Your task to perform on an android device: turn pop-ups off in chrome Image 0: 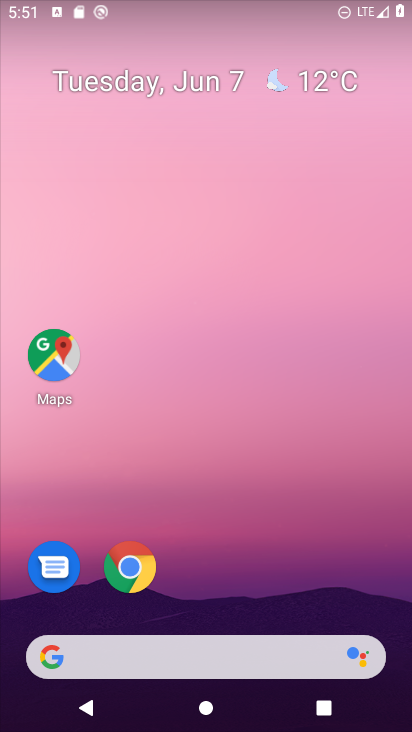
Step 0: drag from (304, 637) to (338, 140)
Your task to perform on an android device: turn pop-ups off in chrome Image 1: 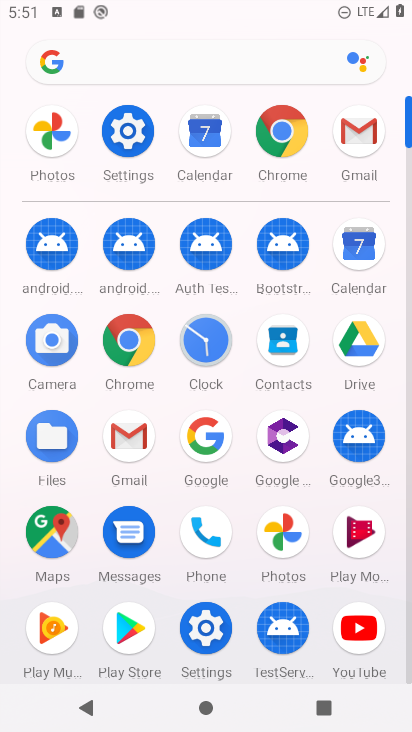
Step 1: click (145, 353)
Your task to perform on an android device: turn pop-ups off in chrome Image 2: 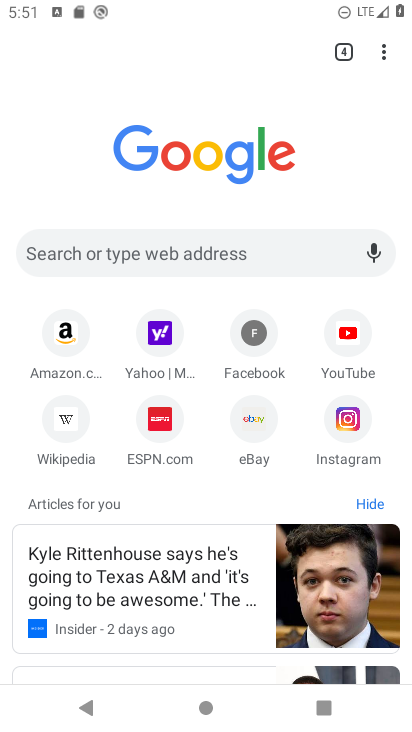
Step 2: click (380, 54)
Your task to perform on an android device: turn pop-ups off in chrome Image 3: 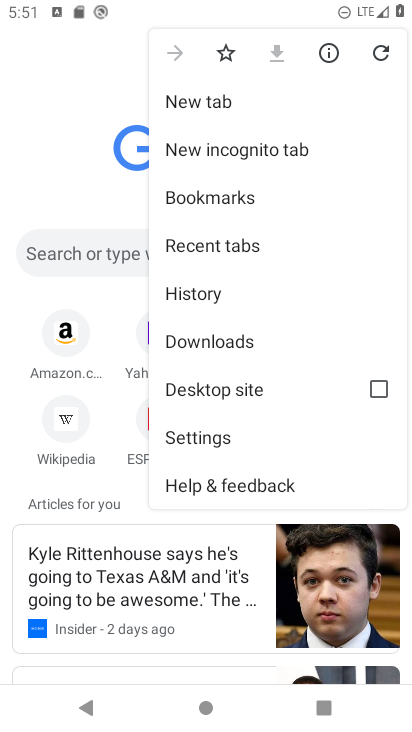
Step 3: click (251, 455)
Your task to perform on an android device: turn pop-ups off in chrome Image 4: 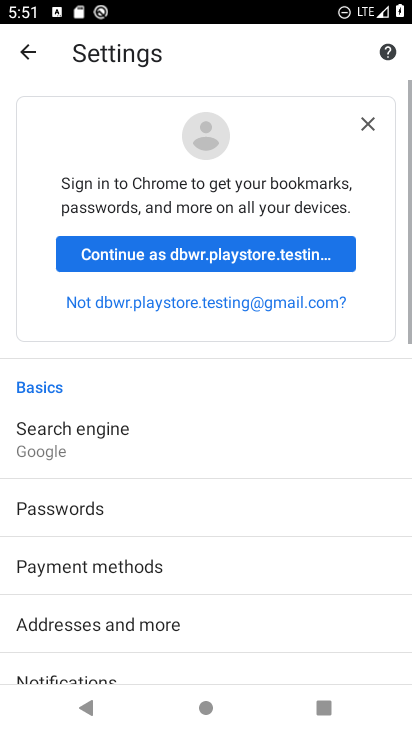
Step 4: drag from (249, 618) to (337, 89)
Your task to perform on an android device: turn pop-ups off in chrome Image 5: 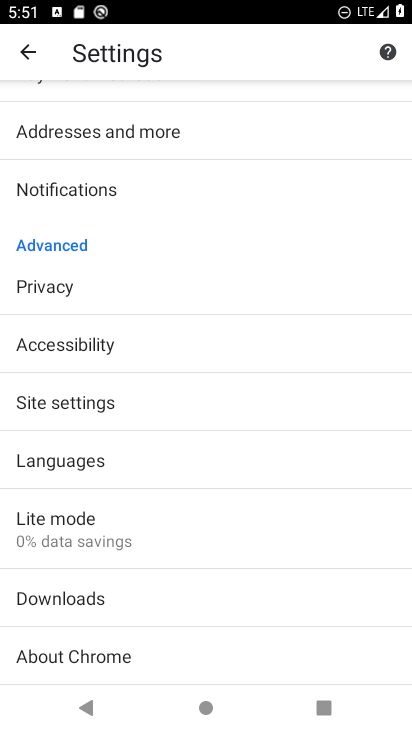
Step 5: click (170, 420)
Your task to perform on an android device: turn pop-ups off in chrome Image 6: 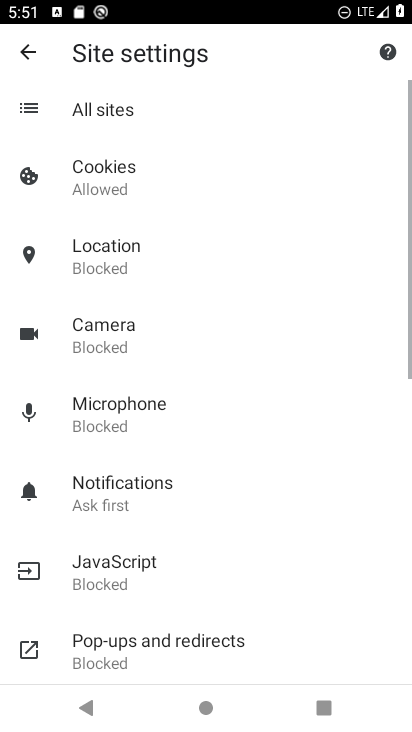
Step 6: drag from (252, 584) to (304, 323)
Your task to perform on an android device: turn pop-ups off in chrome Image 7: 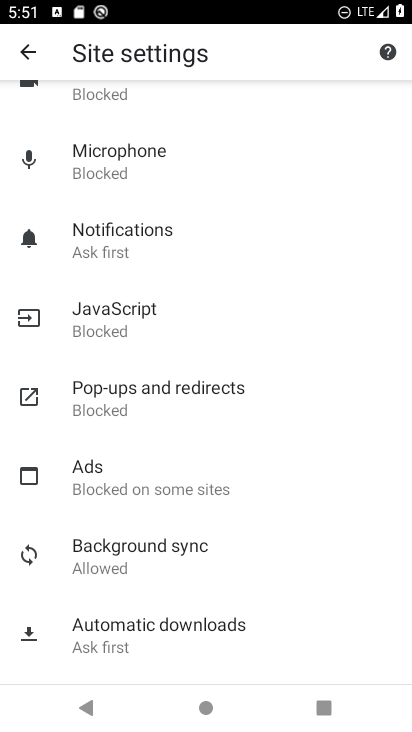
Step 7: click (238, 407)
Your task to perform on an android device: turn pop-ups off in chrome Image 8: 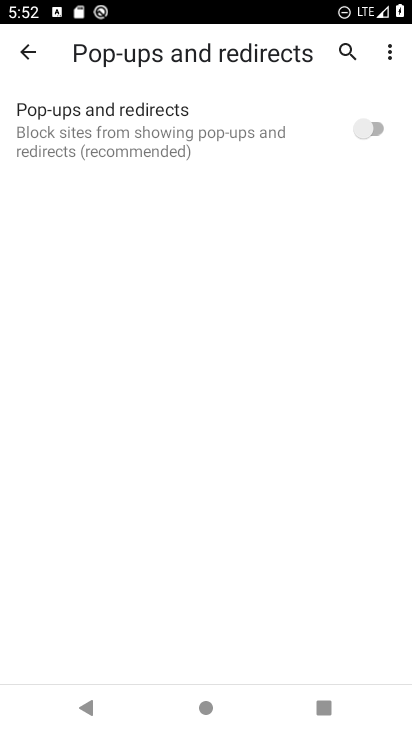
Step 8: task complete